Your task to perform on an android device: Open ESPN.com Image 0: 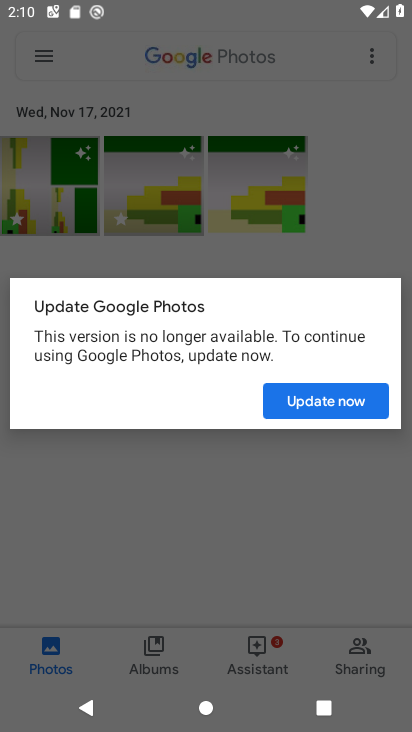
Step 0: press home button
Your task to perform on an android device: Open ESPN.com Image 1: 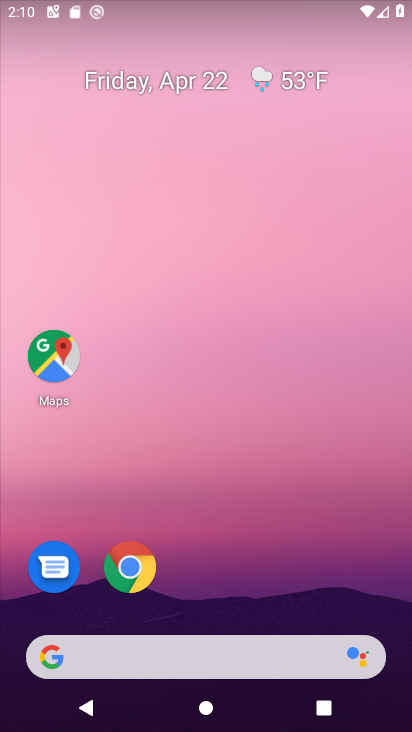
Step 1: click (243, 665)
Your task to perform on an android device: Open ESPN.com Image 2: 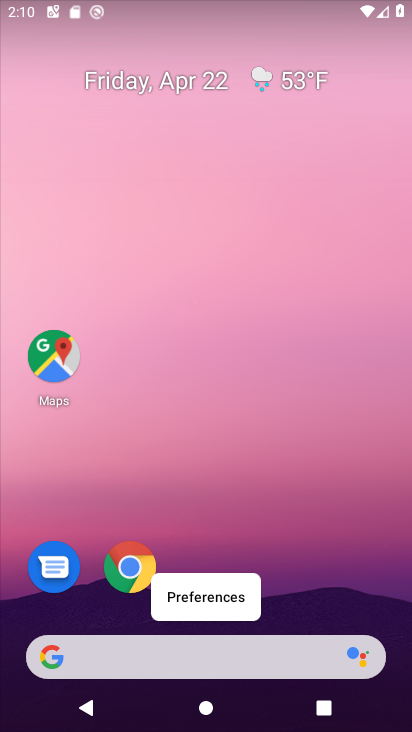
Step 2: click (248, 657)
Your task to perform on an android device: Open ESPN.com Image 3: 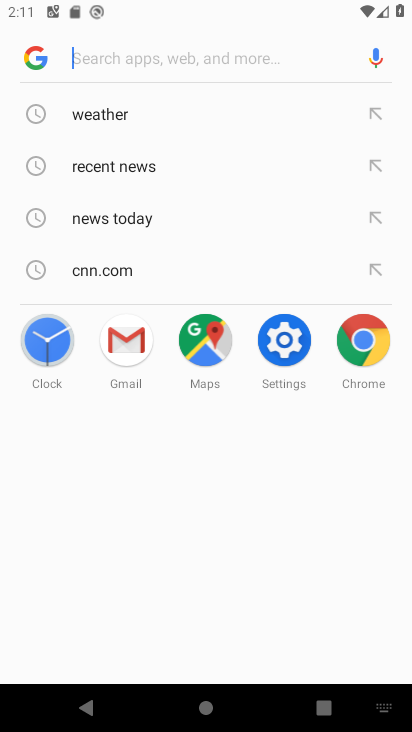
Step 3: type "espn.com"
Your task to perform on an android device: Open ESPN.com Image 4: 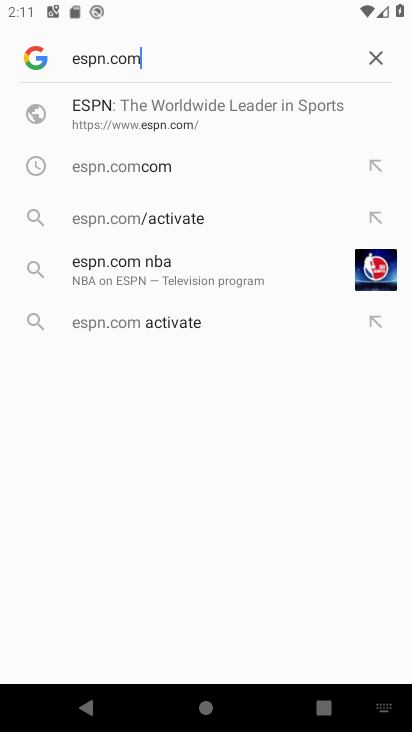
Step 4: click (180, 119)
Your task to perform on an android device: Open ESPN.com Image 5: 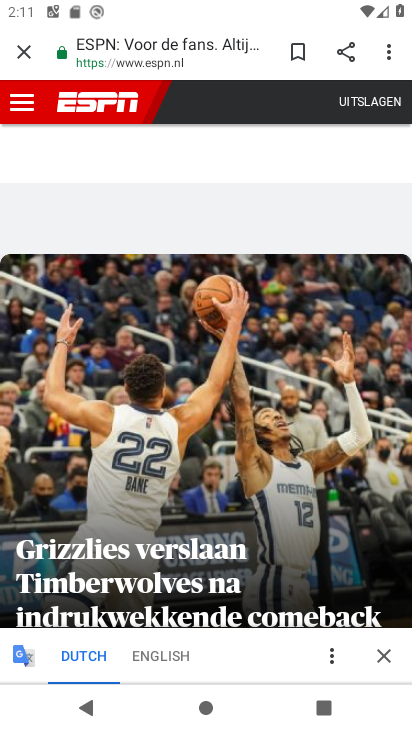
Step 5: task complete